Your task to perform on an android device: Search for pizza restaurants on Maps Image 0: 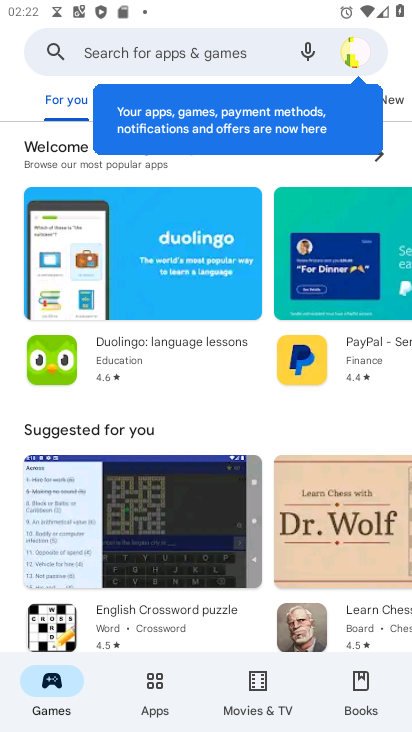
Step 0: press home button
Your task to perform on an android device: Search for pizza restaurants on Maps Image 1: 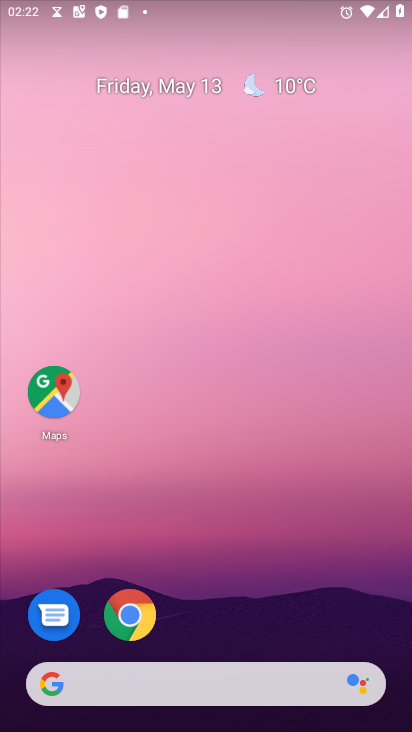
Step 1: click (37, 399)
Your task to perform on an android device: Search for pizza restaurants on Maps Image 2: 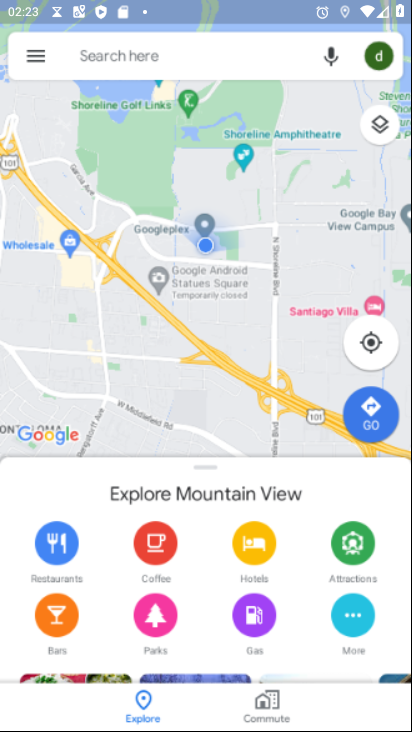
Step 2: press home button
Your task to perform on an android device: Search for pizza restaurants on Maps Image 3: 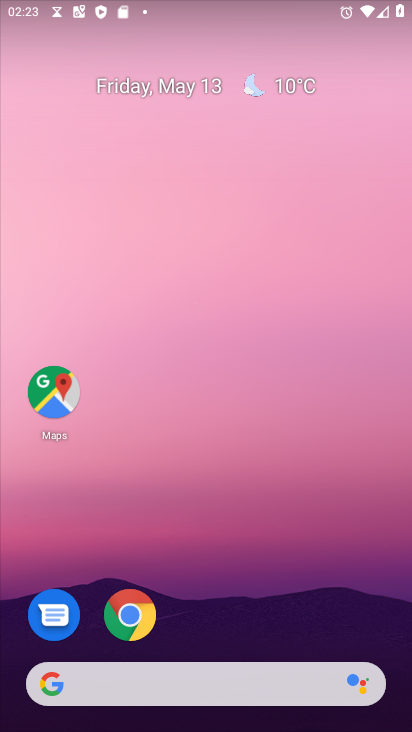
Step 3: click (47, 393)
Your task to perform on an android device: Search for pizza restaurants on Maps Image 4: 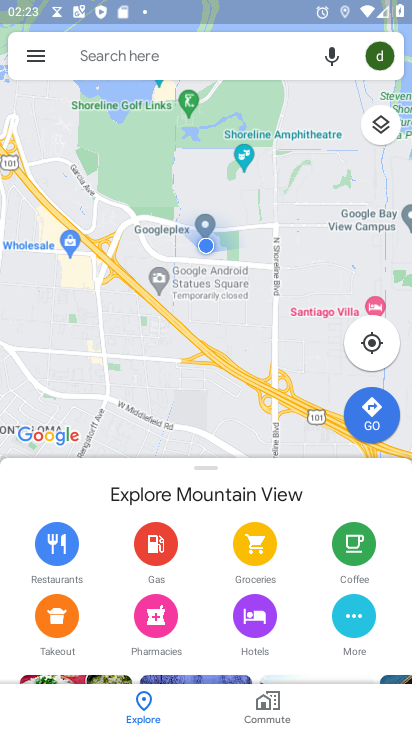
Step 4: click (130, 61)
Your task to perform on an android device: Search for pizza restaurants on Maps Image 5: 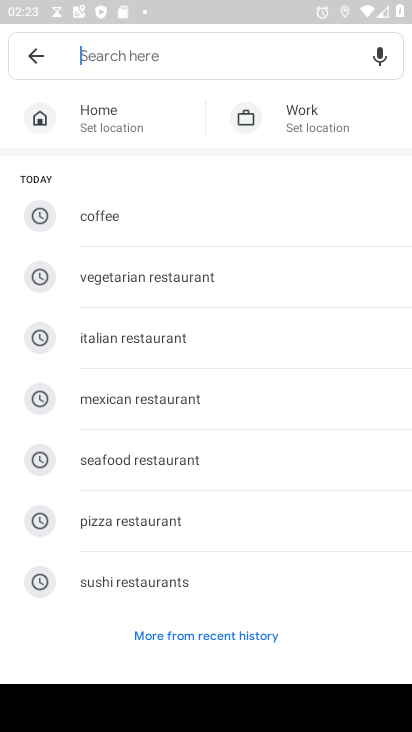
Step 5: click (115, 513)
Your task to perform on an android device: Search for pizza restaurants on Maps Image 6: 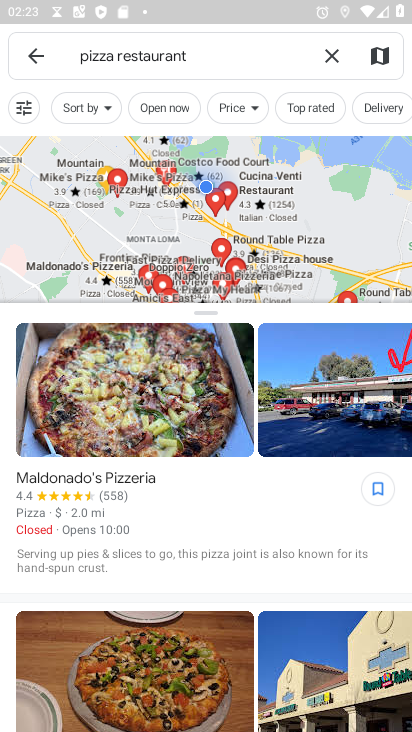
Step 6: task complete